Your task to perform on an android device: Open battery settings Image 0: 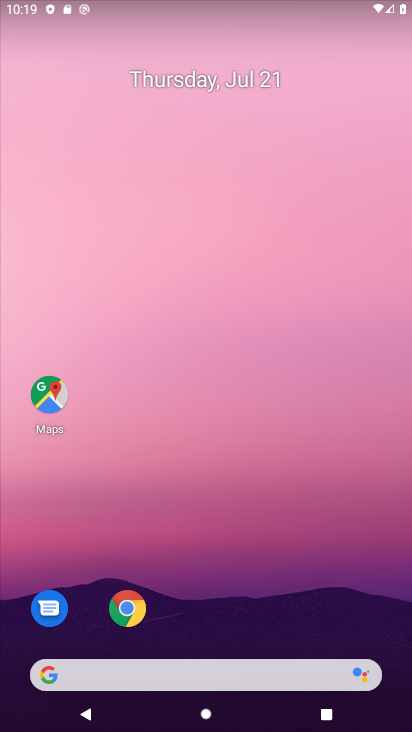
Step 0: drag from (212, 598) to (265, 27)
Your task to perform on an android device: Open battery settings Image 1: 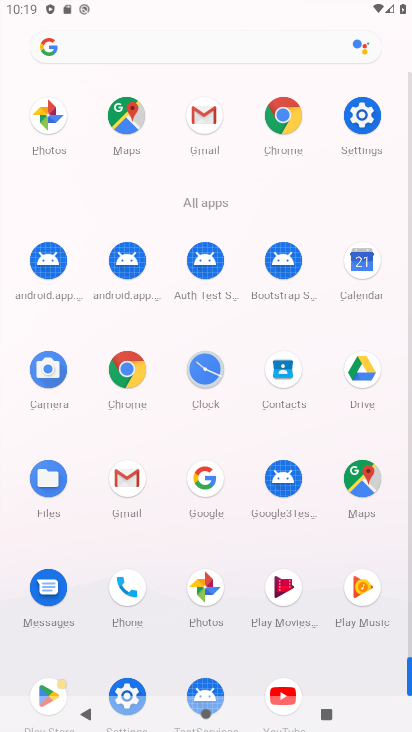
Step 1: click (131, 684)
Your task to perform on an android device: Open battery settings Image 2: 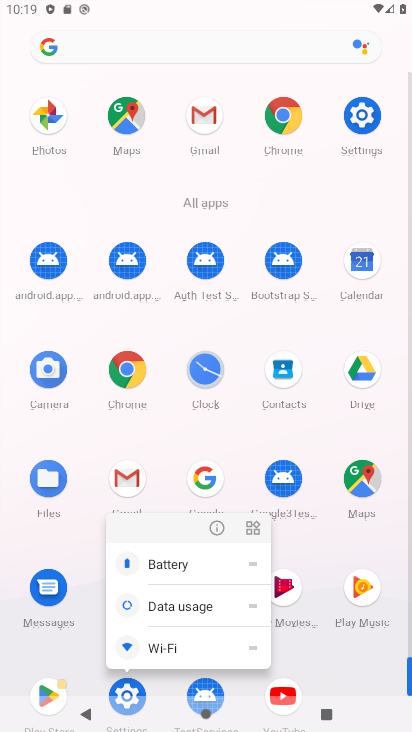
Step 2: click (123, 681)
Your task to perform on an android device: Open battery settings Image 3: 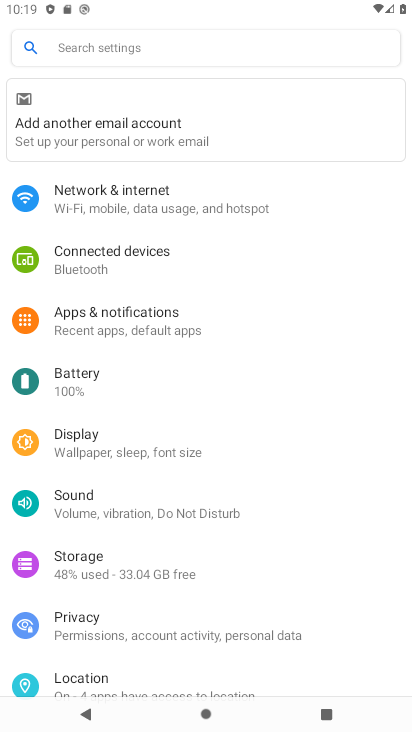
Step 3: click (102, 389)
Your task to perform on an android device: Open battery settings Image 4: 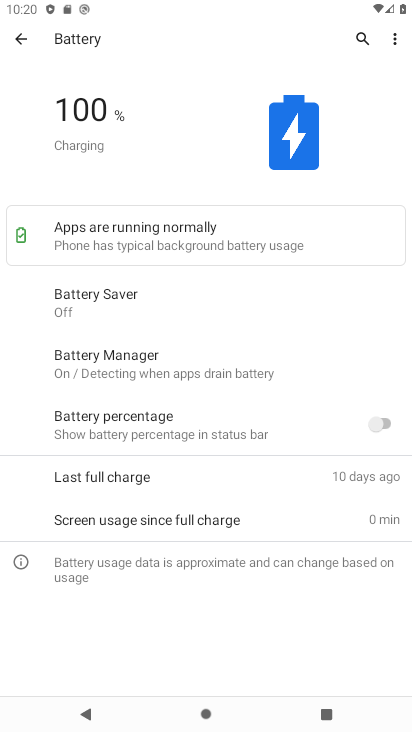
Step 4: task complete